Your task to perform on an android device: turn on airplane mode Image 0: 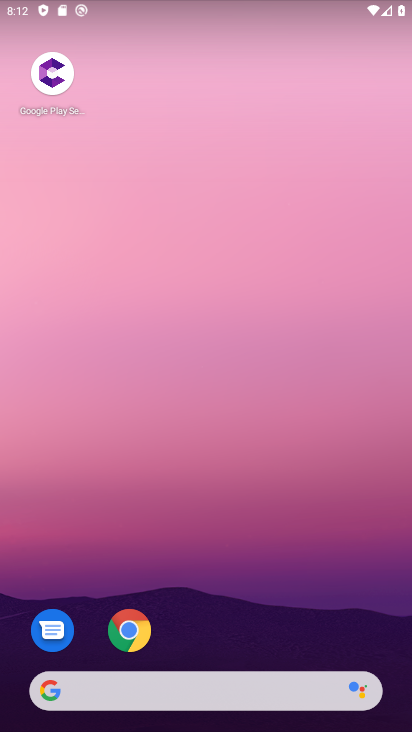
Step 0: drag from (194, 656) to (288, 113)
Your task to perform on an android device: turn on airplane mode Image 1: 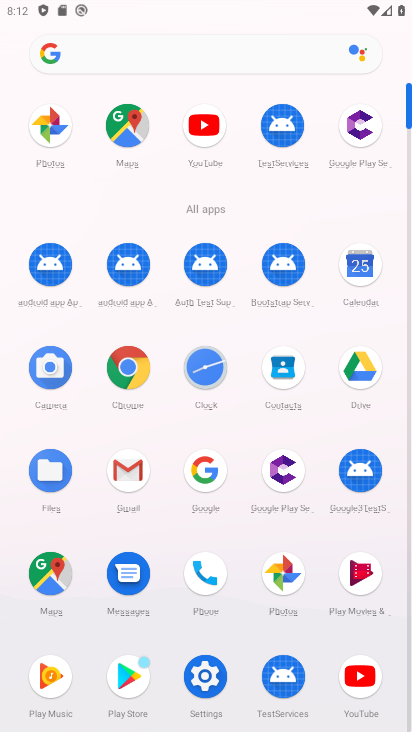
Step 1: click (212, 681)
Your task to perform on an android device: turn on airplane mode Image 2: 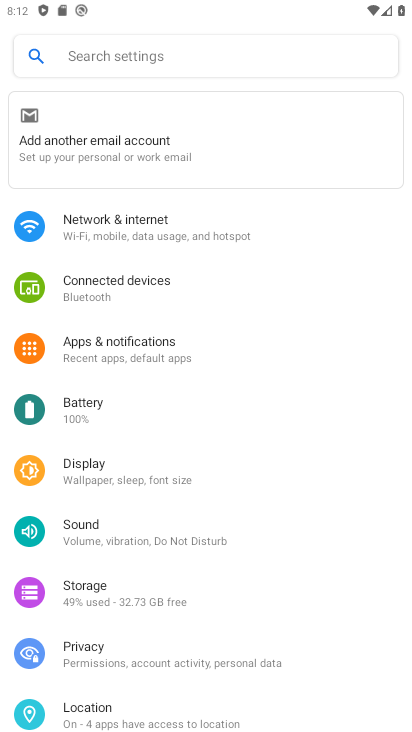
Step 2: click (220, 250)
Your task to perform on an android device: turn on airplane mode Image 3: 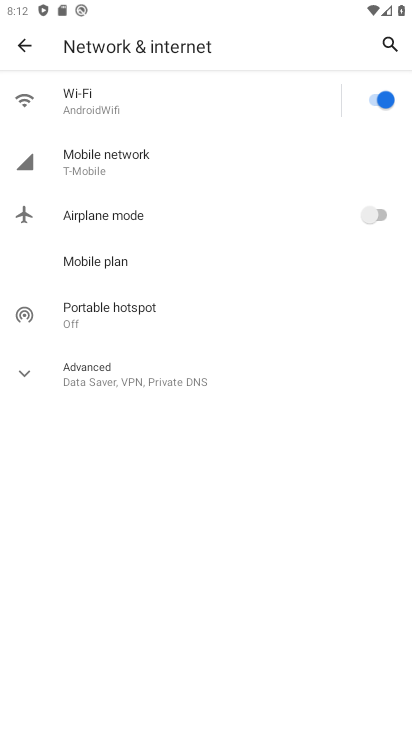
Step 3: click (385, 210)
Your task to perform on an android device: turn on airplane mode Image 4: 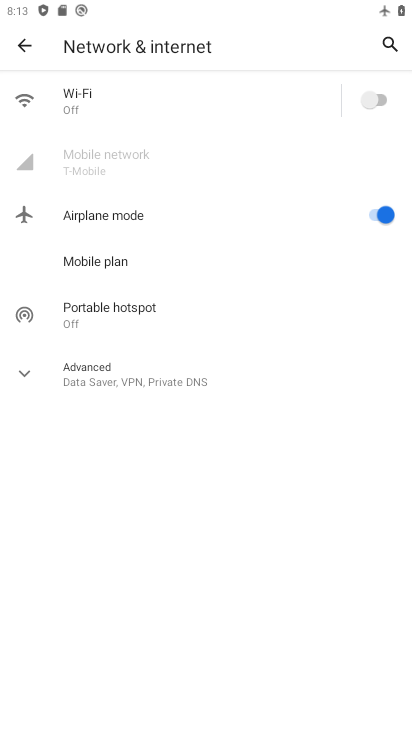
Step 4: task complete